Your task to perform on an android device: Check the weather Image 0: 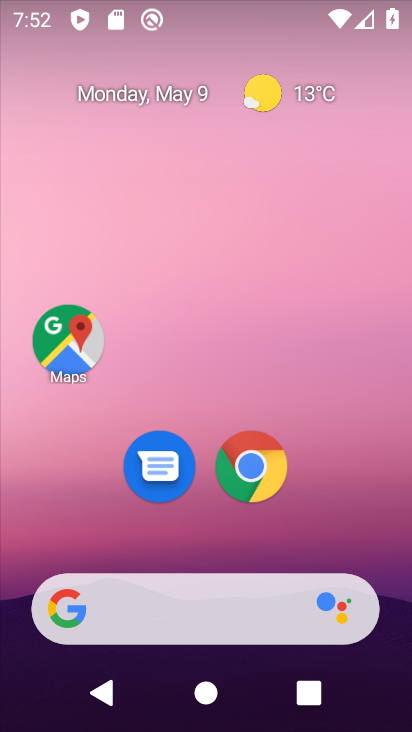
Step 0: drag from (329, 507) to (253, 69)
Your task to perform on an android device: Check the weather Image 1: 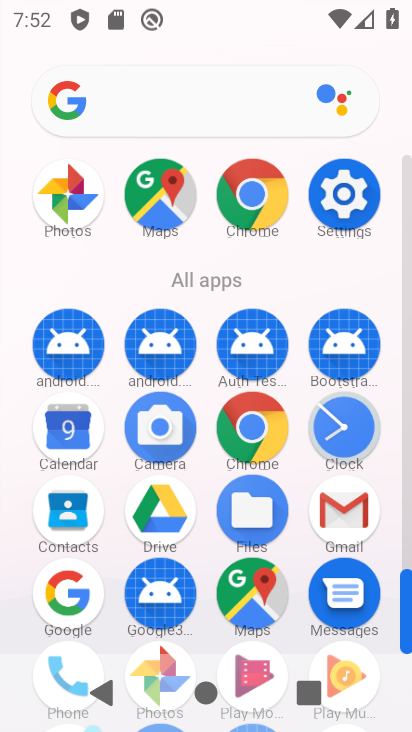
Step 1: drag from (202, 397) to (182, 121)
Your task to perform on an android device: Check the weather Image 2: 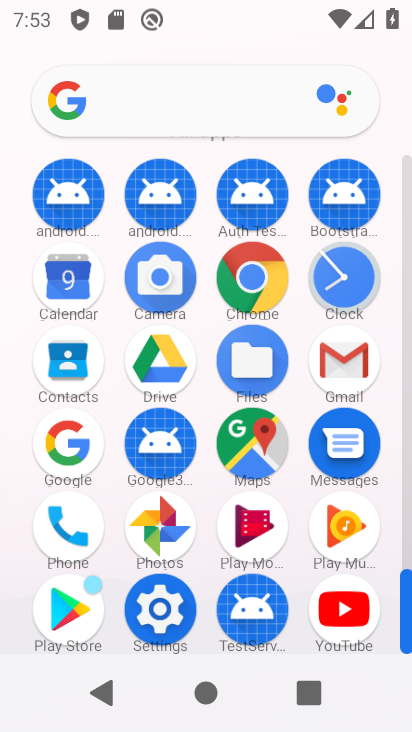
Step 2: click (66, 443)
Your task to perform on an android device: Check the weather Image 3: 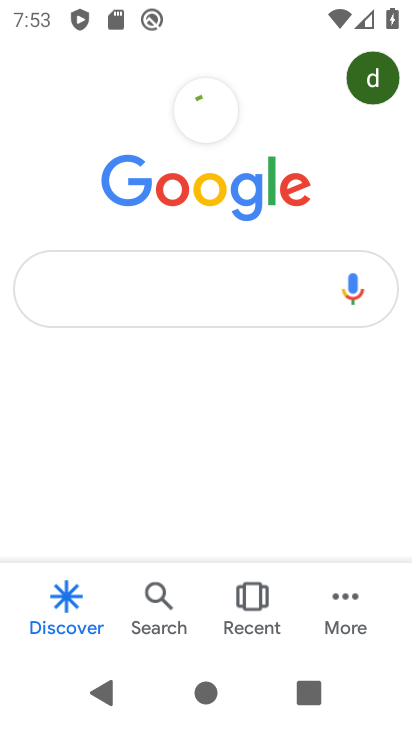
Step 3: click (168, 299)
Your task to perform on an android device: Check the weather Image 4: 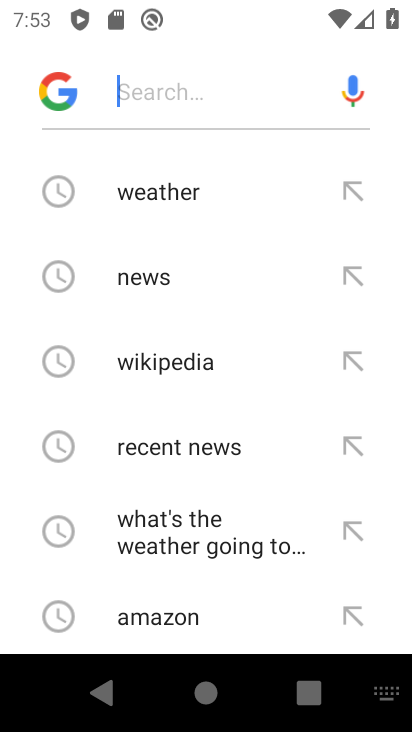
Step 4: click (145, 191)
Your task to perform on an android device: Check the weather Image 5: 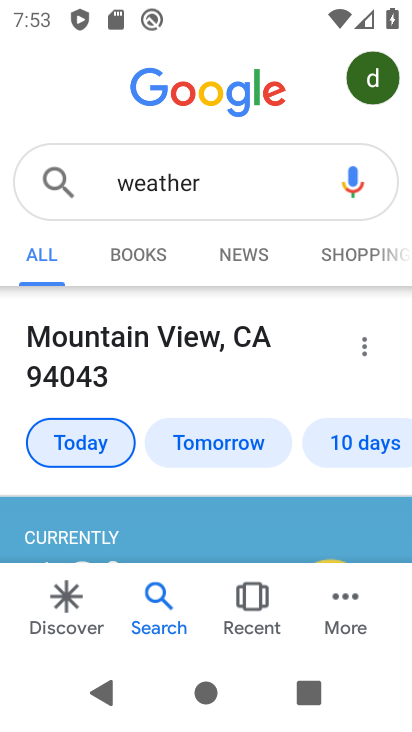
Step 5: task complete